Your task to perform on an android device: open app "Calculator" (install if not already installed) Image 0: 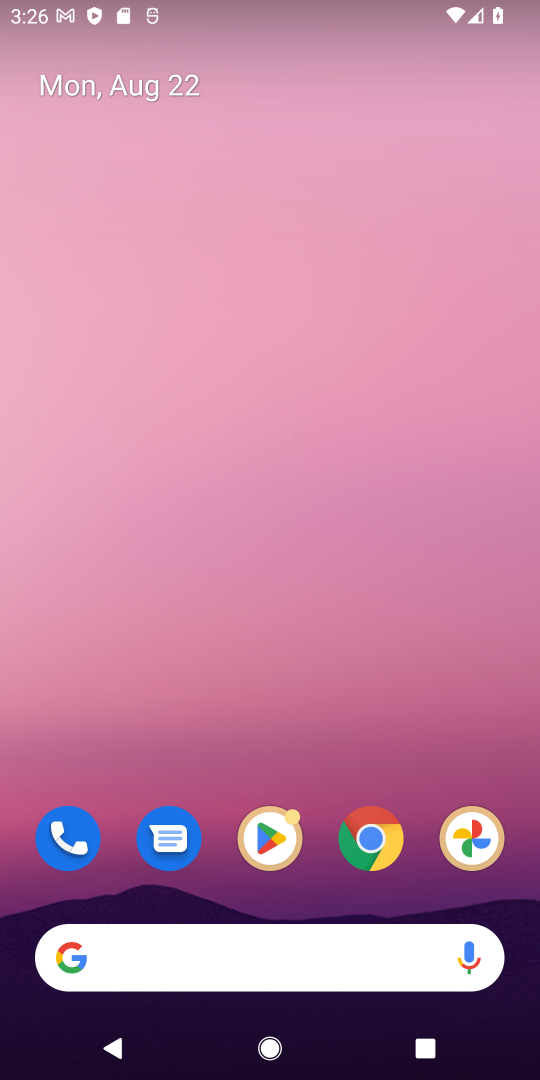
Step 0: click (270, 824)
Your task to perform on an android device: open app "Calculator" (install if not already installed) Image 1: 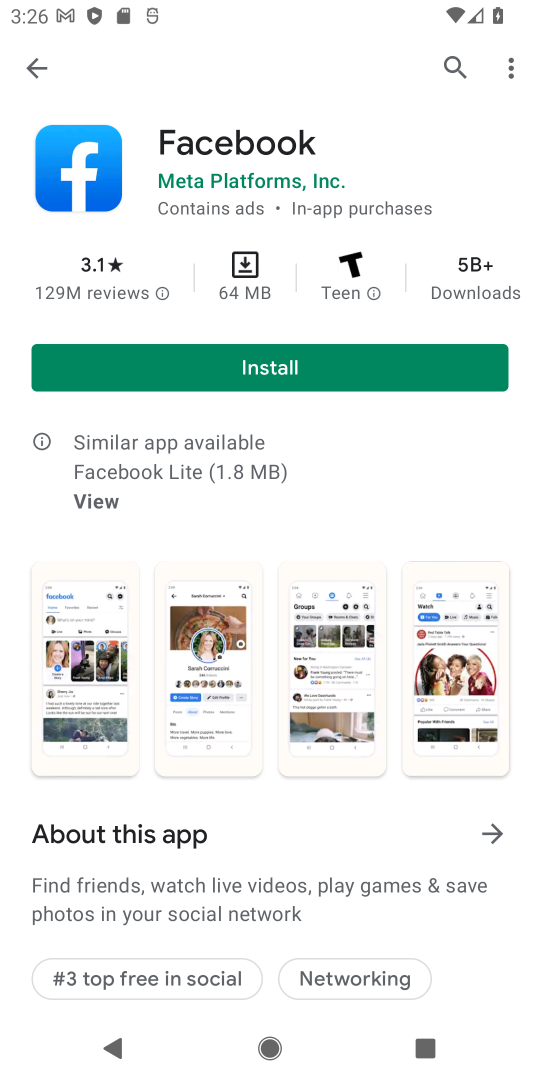
Step 1: click (445, 55)
Your task to perform on an android device: open app "Calculator" (install if not already installed) Image 2: 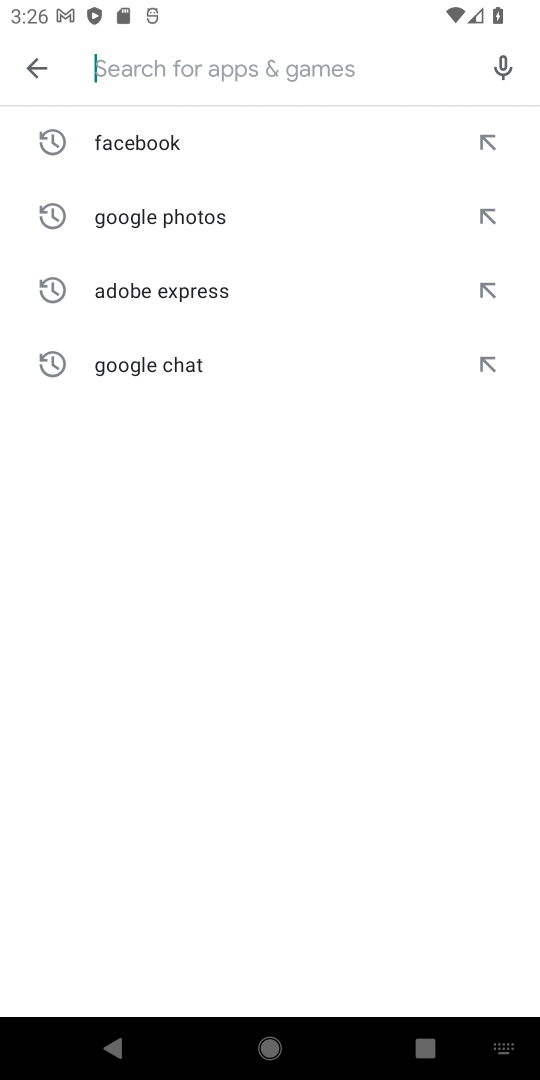
Step 2: type "calculator"
Your task to perform on an android device: open app "Calculator" (install if not already installed) Image 3: 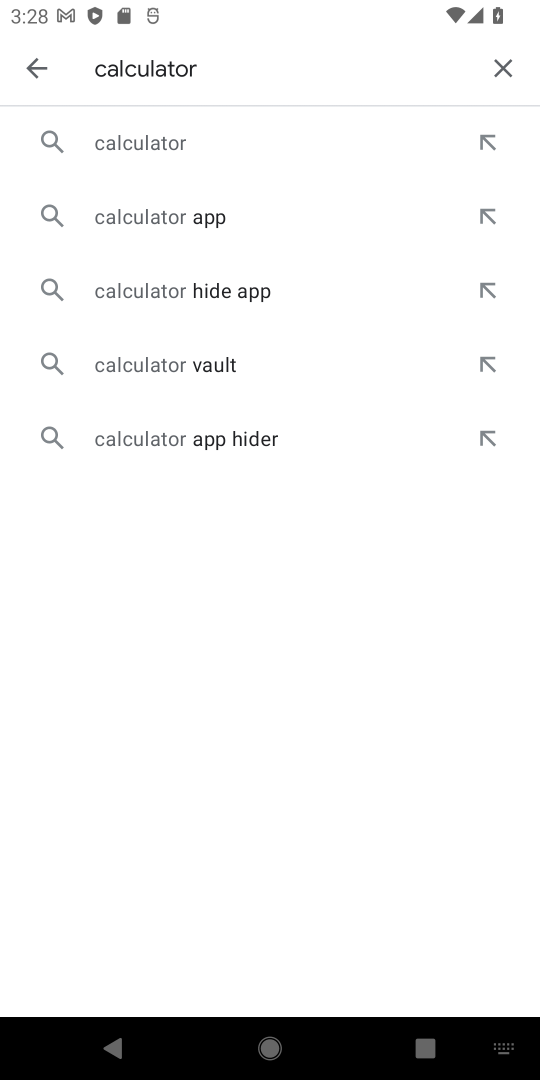
Step 3: click (159, 119)
Your task to perform on an android device: open app "Calculator" (install if not already installed) Image 4: 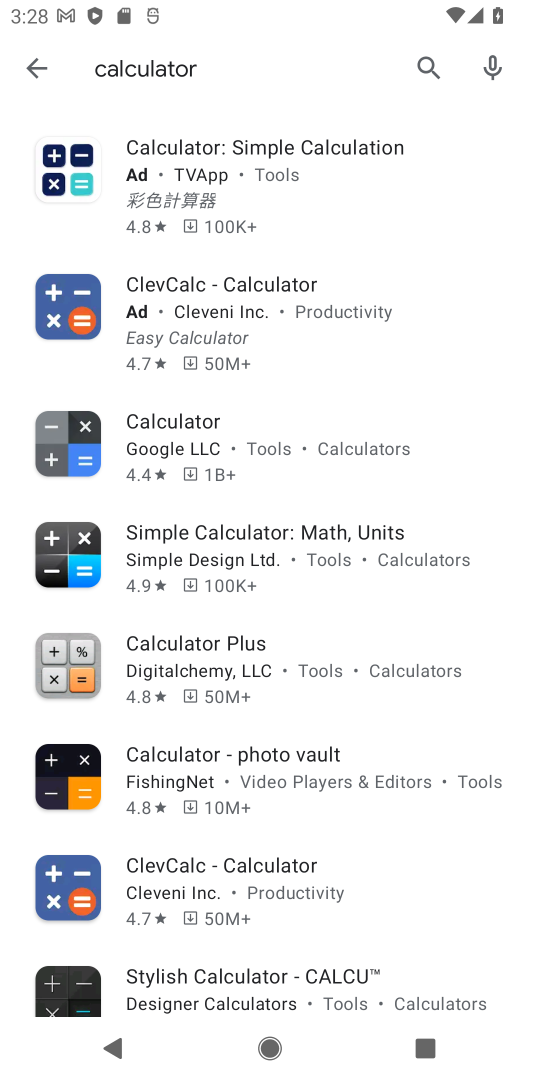
Step 4: click (300, 455)
Your task to perform on an android device: open app "Calculator" (install if not already installed) Image 5: 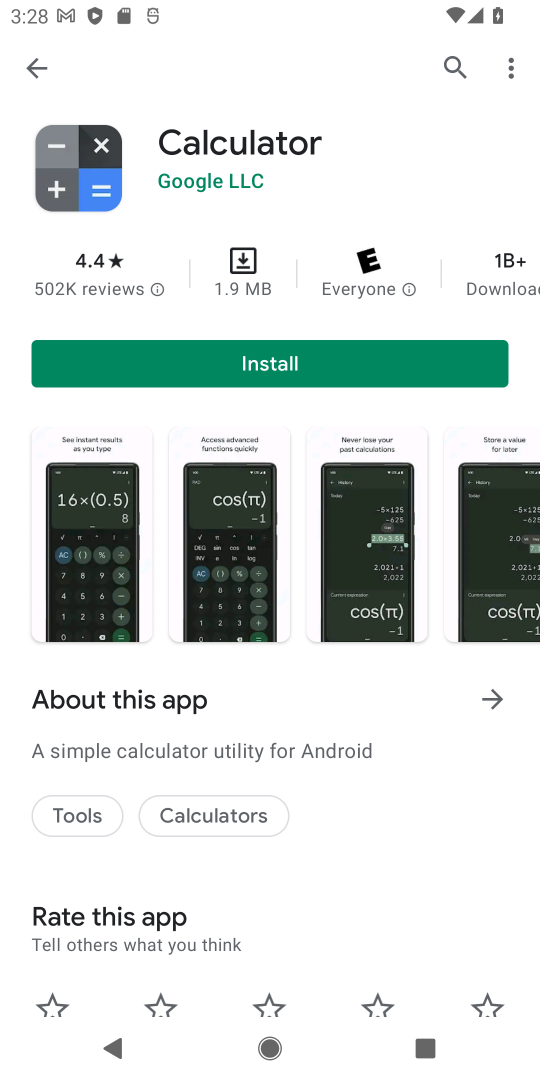
Step 5: click (284, 358)
Your task to perform on an android device: open app "Calculator" (install if not already installed) Image 6: 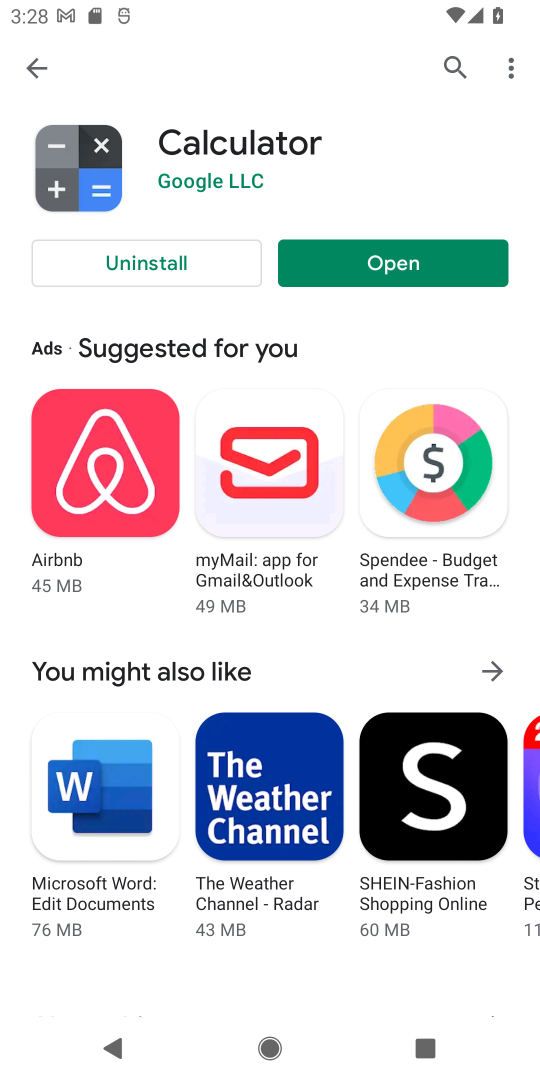
Step 6: click (394, 275)
Your task to perform on an android device: open app "Calculator" (install if not already installed) Image 7: 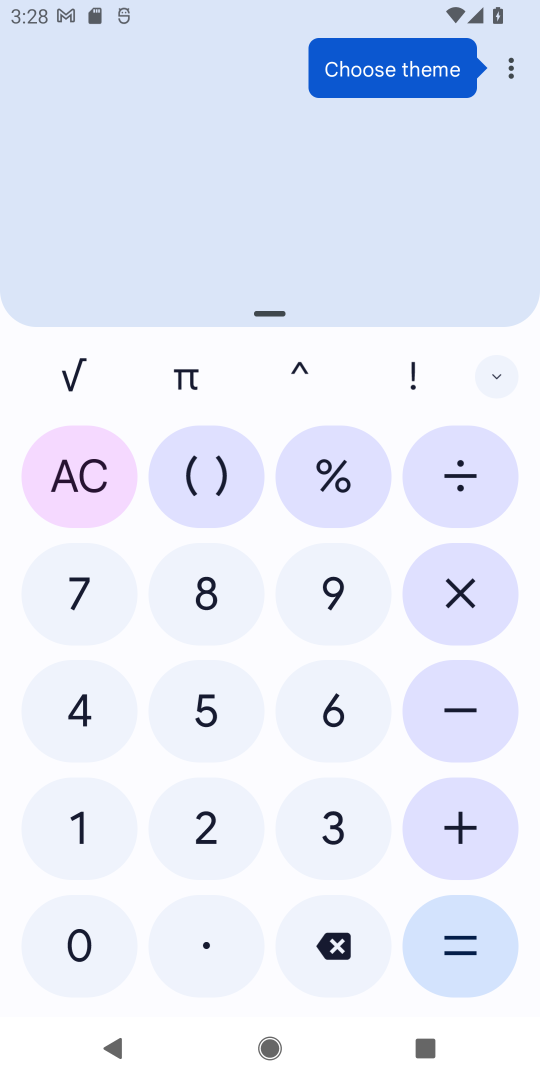
Step 7: task complete